Your task to perform on an android device: Open display settings Image 0: 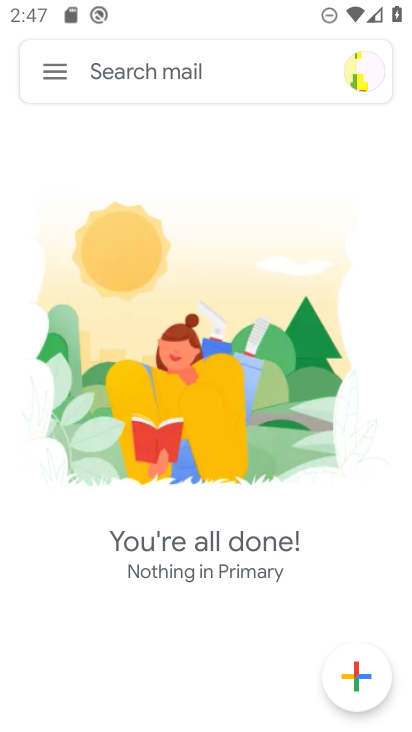
Step 0: press home button
Your task to perform on an android device: Open display settings Image 1: 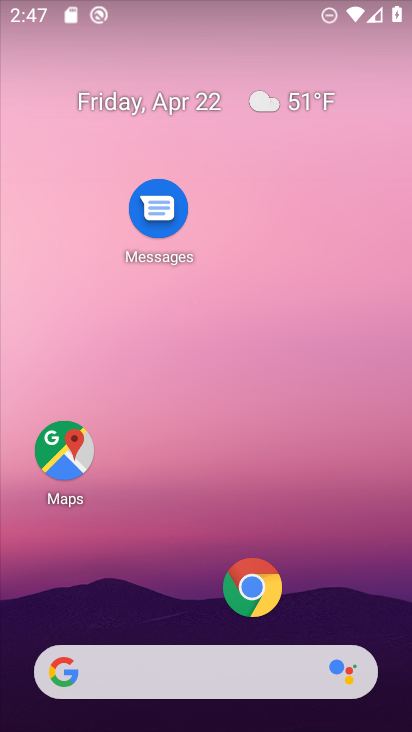
Step 1: drag from (178, 603) to (237, 201)
Your task to perform on an android device: Open display settings Image 2: 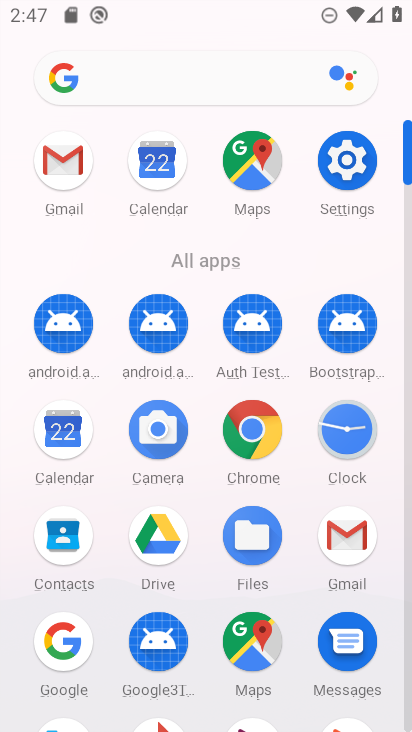
Step 2: click (354, 145)
Your task to perform on an android device: Open display settings Image 3: 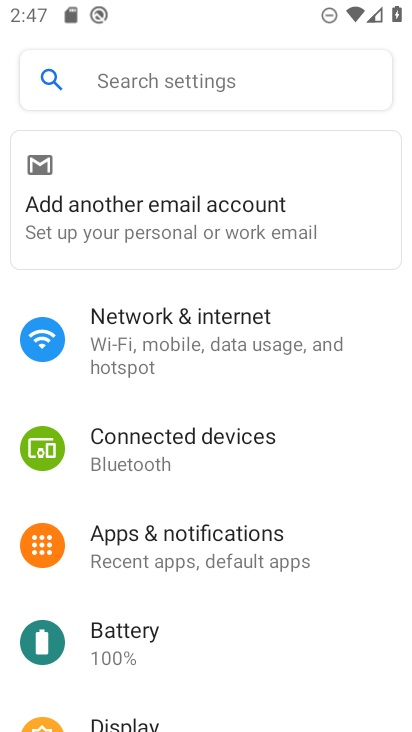
Step 3: drag from (197, 572) to (227, 336)
Your task to perform on an android device: Open display settings Image 4: 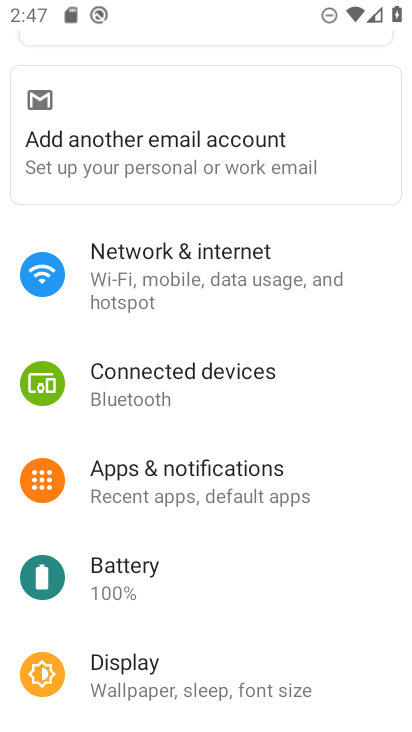
Step 4: click (180, 660)
Your task to perform on an android device: Open display settings Image 5: 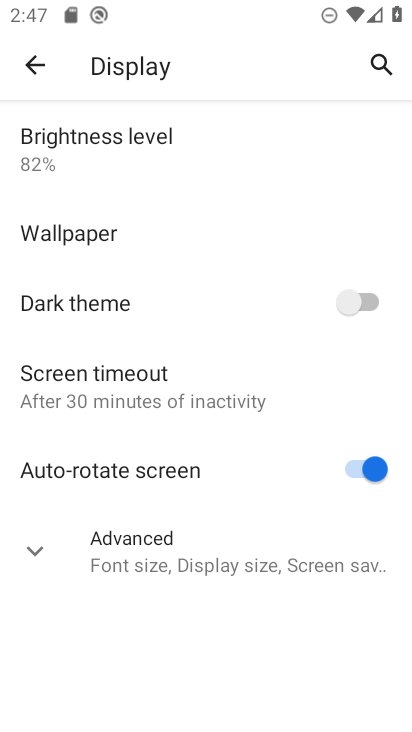
Step 5: task complete